Your task to perform on an android device: Search for Mexican restaurants on Maps Image 0: 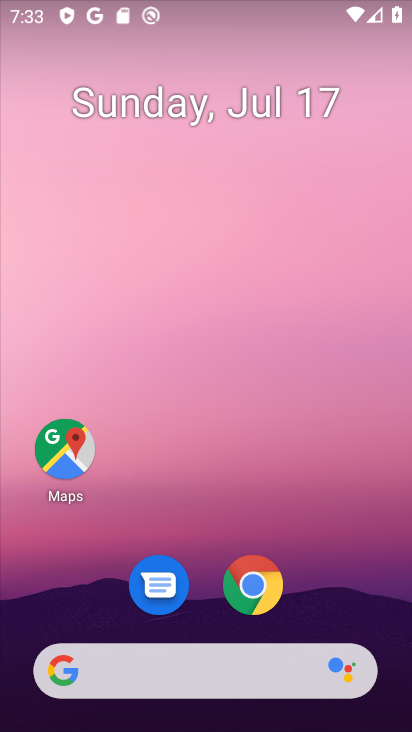
Step 0: click (68, 460)
Your task to perform on an android device: Search for Mexican restaurants on Maps Image 1: 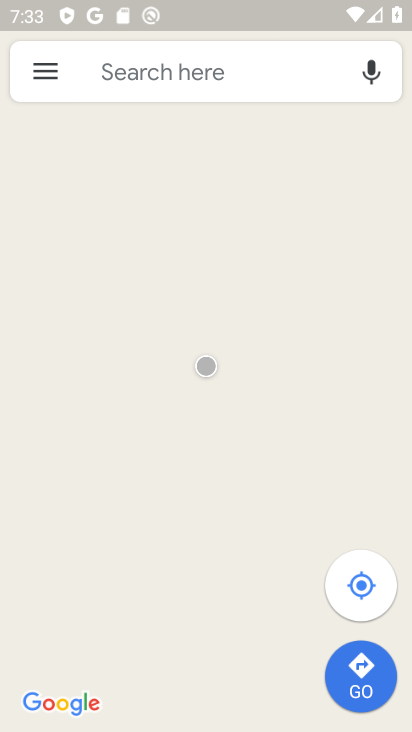
Step 1: click (261, 66)
Your task to perform on an android device: Search for Mexican restaurants on Maps Image 2: 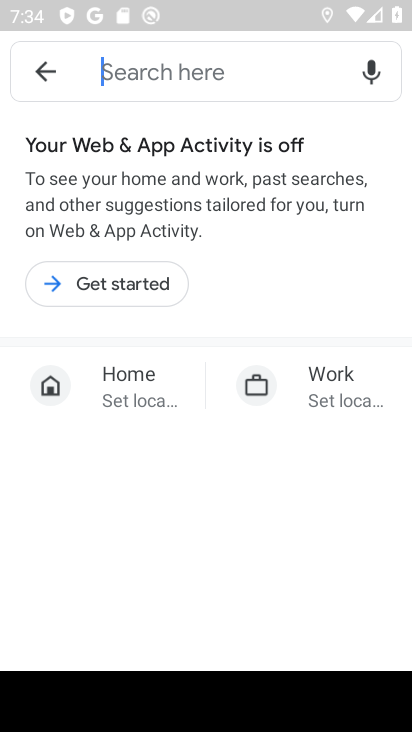
Step 2: click (143, 271)
Your task to perform on an android device: Search for Mexican restaurants on Maps Image 3: 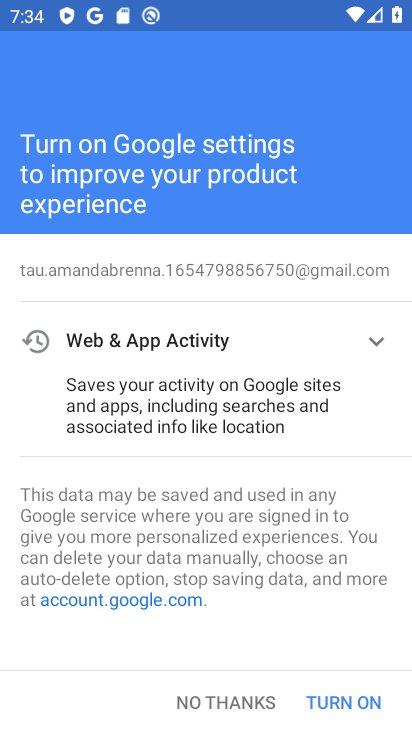
Step 3: click (357, 704)
Your task to perform on an android device: Search for Mexican restaurants on Maps Image 4: 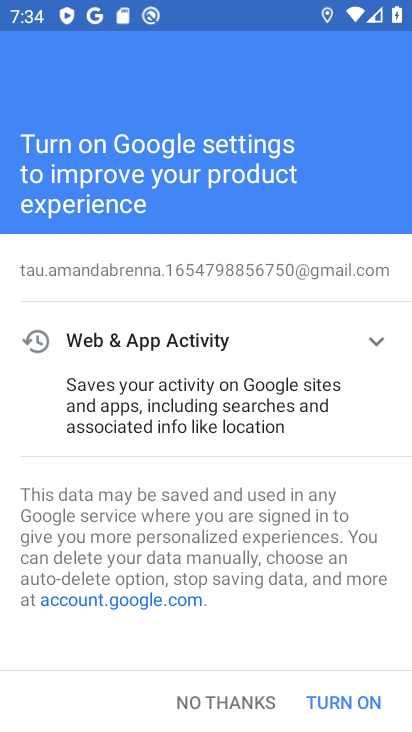
Step 4: click (358, 704)
Your task to perform on an android device: Search for Mexican restaurants on Maps Image 5: 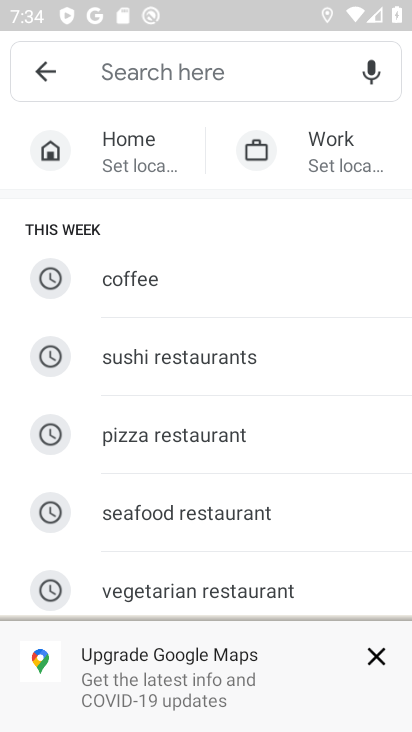
Step 5: drag from (266, 493) to (255, 235)
Your task to perform on an android device: Search for Mexican restaurants on Maps Image 6: 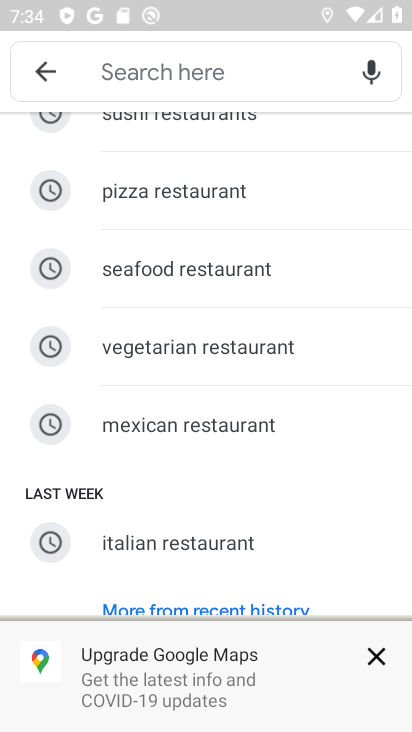
Step 6: click (259, 418)
Your task to perform on an android device: Search for Mexican restaurants on Maps Image 7: 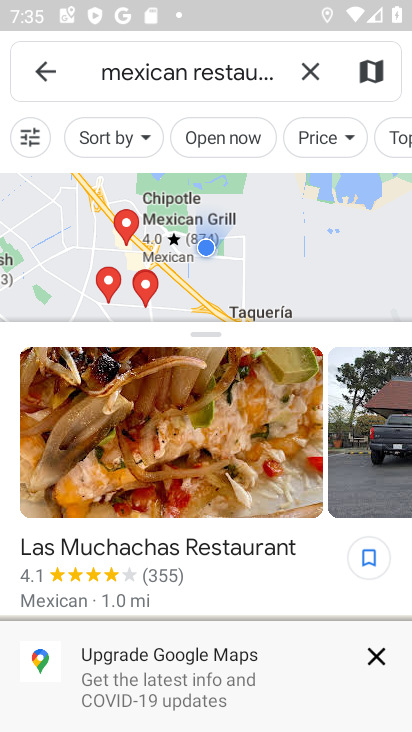
Step 7: task complete